Your task to perform on an android device: toggle location history Image 0: 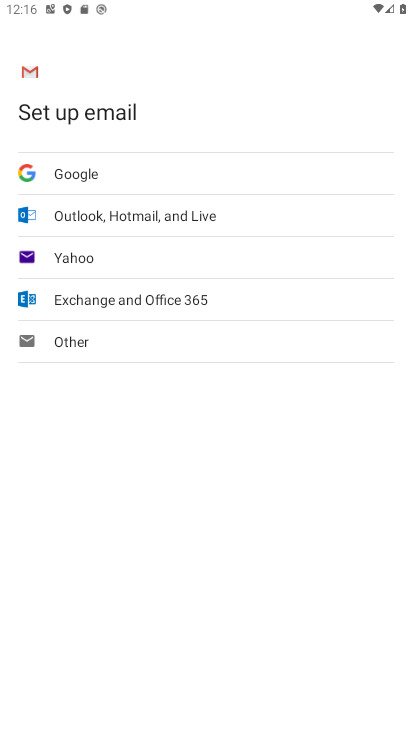
Step 0: press home button
Your task to perform on an android device: toggle location history Image 1: 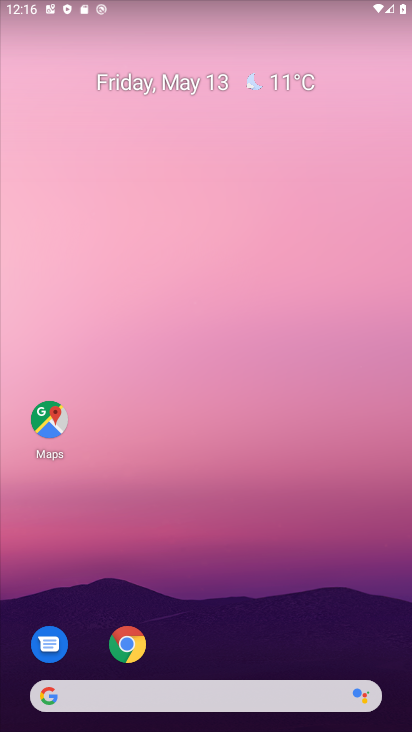
Step 1: drag from (217, 727) to (189, 102)
Your task to perform on an android device: toggle location history Image 2: 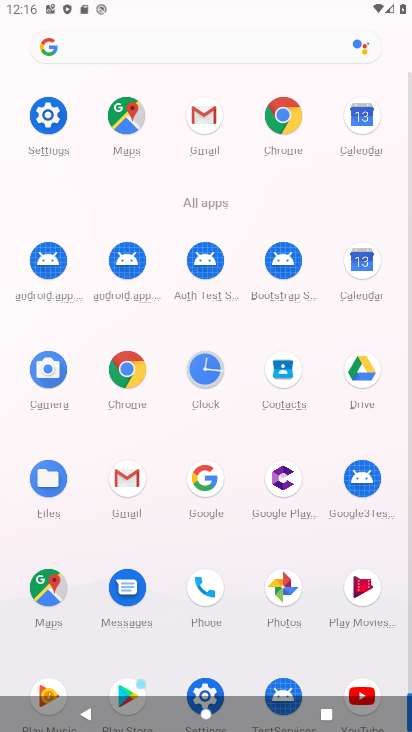
Step 2: click (57, 112)
Your task to perform on an android device: toggle location history Image 3: 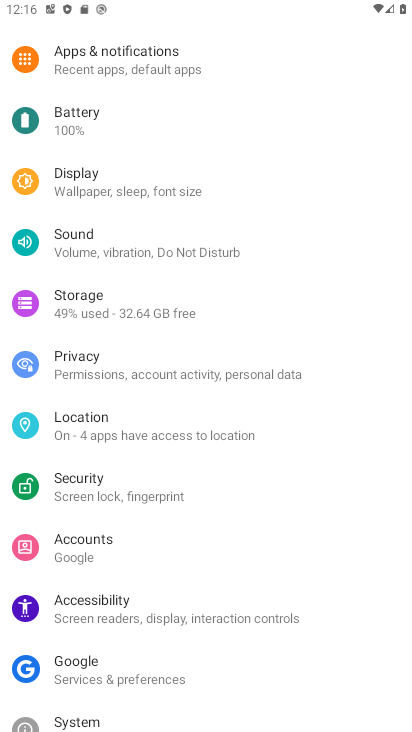
Step 3: click (98, 436)
Your task to perform on an android device: toggle location history Image 4: 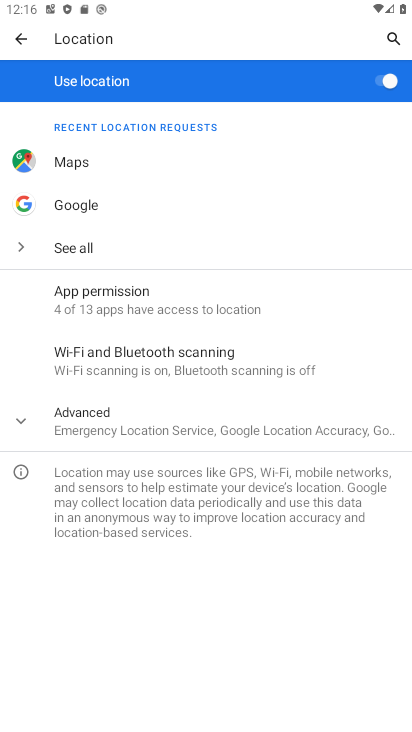
Step 4: click (104, 420)
Your task to perform on an android device: toggle location history Image 5: 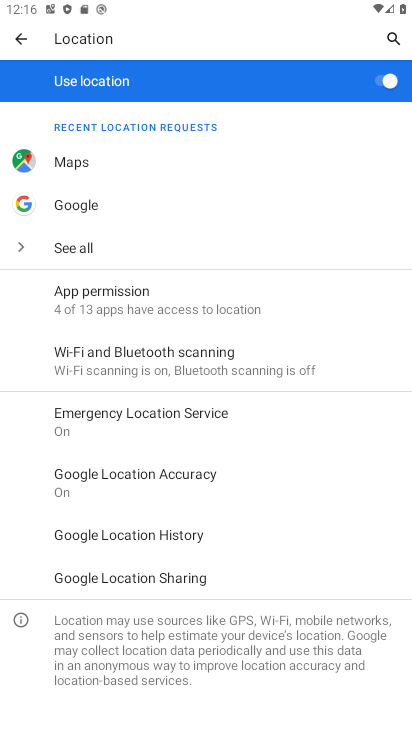
Step 5: click (158, 534)
Your task to perform on an android device: toggle location history Image 6: 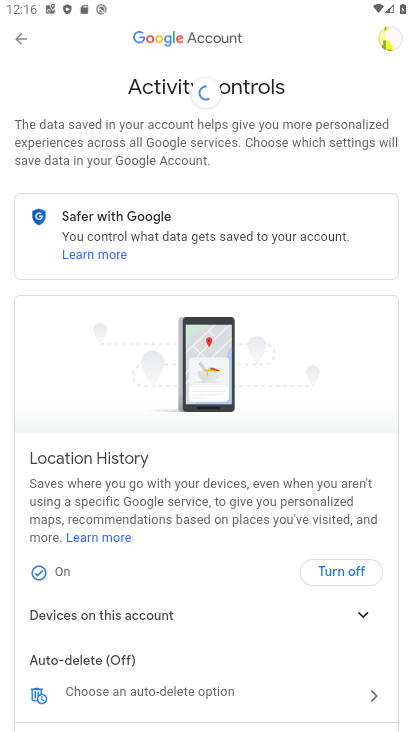
Step 6: drag from (247, 646) to (233, 221)
Your task to perform on an android device: toggle location history Image 7: 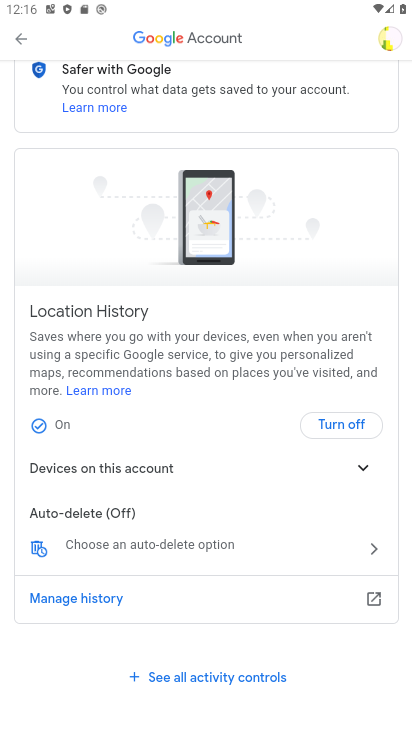
Step 7: click (335, 428)
Your task to perform on an android device: toggle location history Image 8: 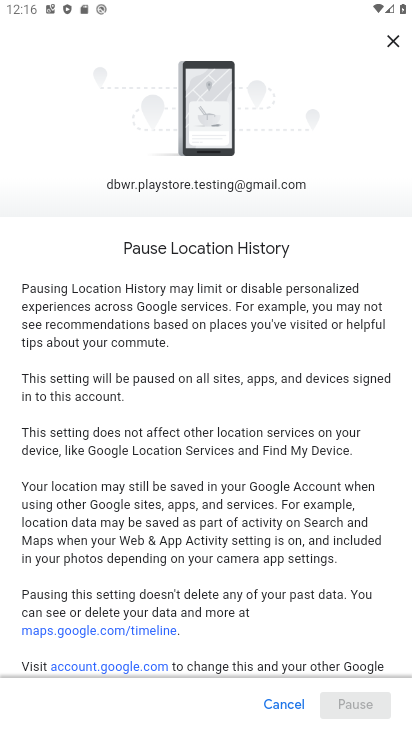
Step 8: drag from (248, 598) to (259, 225)
Your task to perform on an android device: toggle location history Image 9: 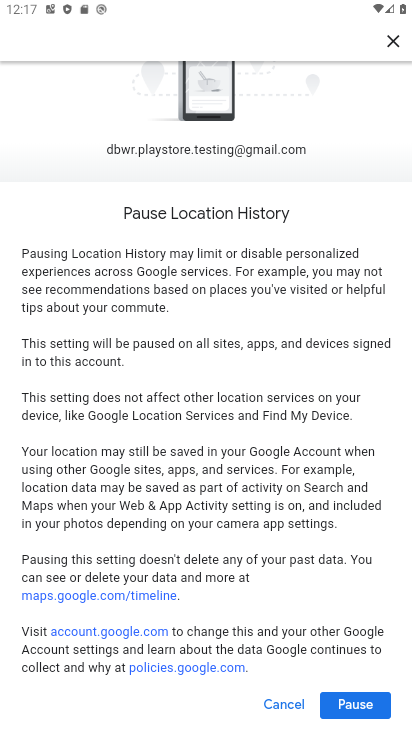
Step 9: click (354, 711)
Your task to perform on an android device: toggle location history Image 10: 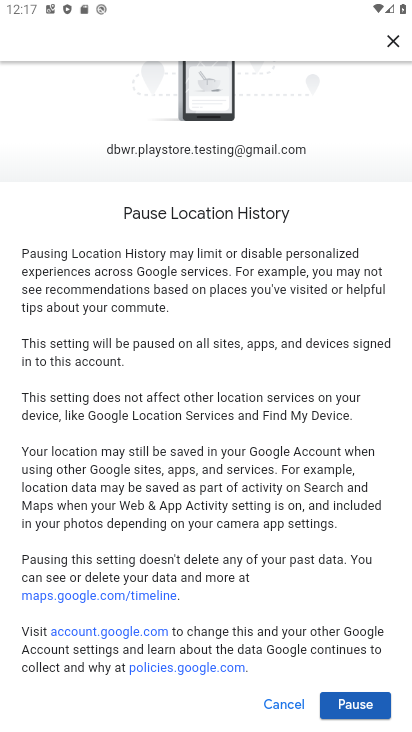
Step 10: click (357, 712)
Your task to perform on an android device: toggle location history Image 11: 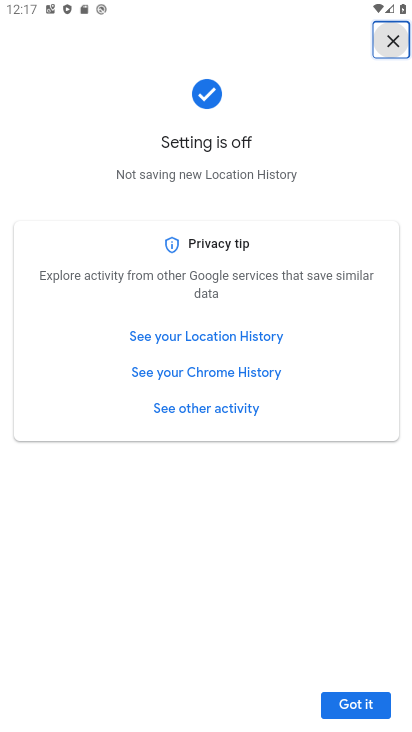
Step 11: task complete